Your task to perform on an android device: Show me recent news Image 0: 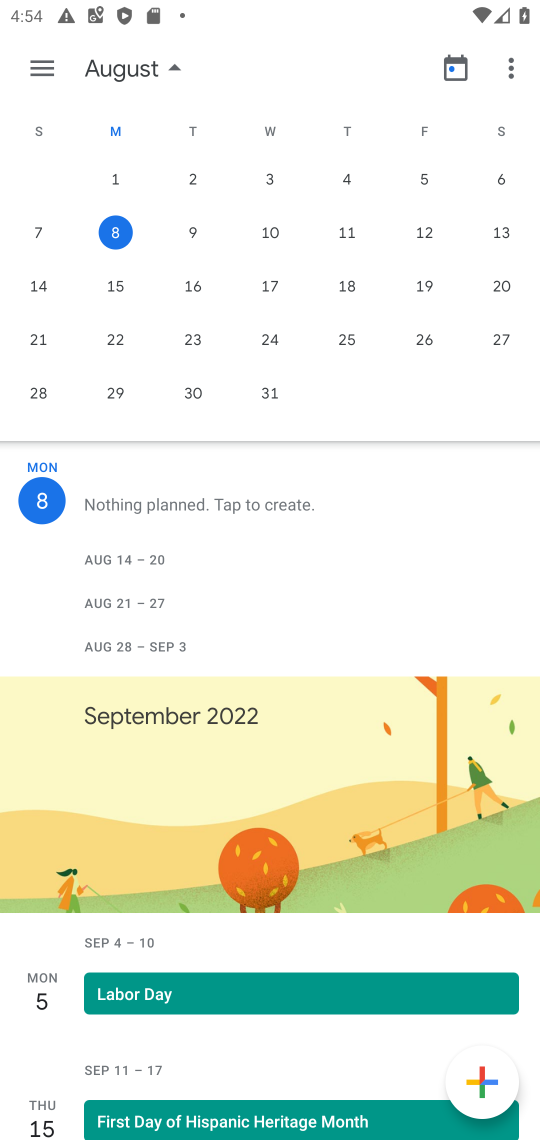
Step 0: press home button
Your task to perform on an android device: Show me recent news Image 1: 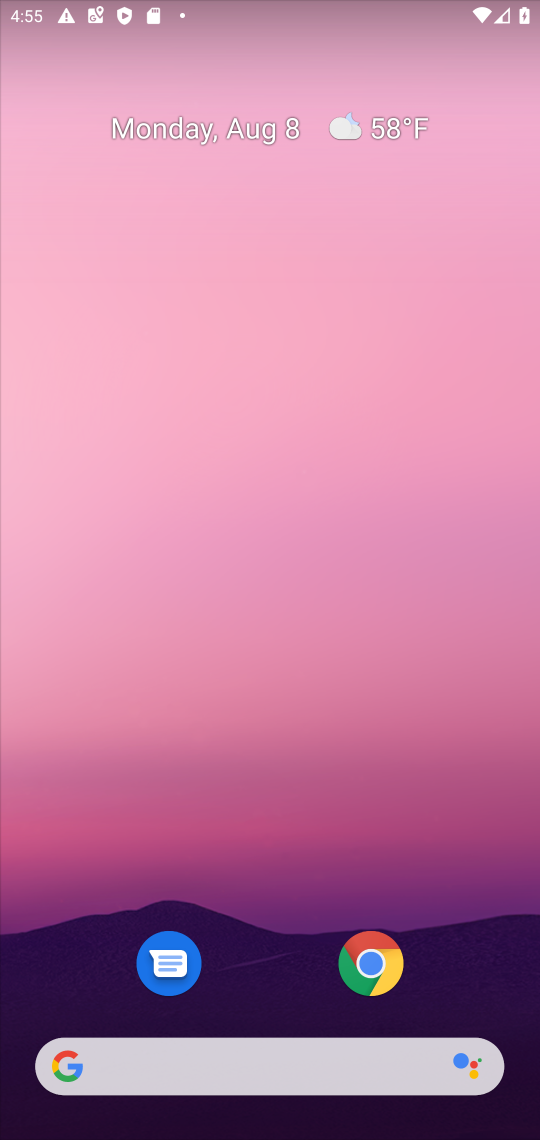
Step 1: click (274, 1057)
Your task to perform on an android device: Show me recent news Image 2: 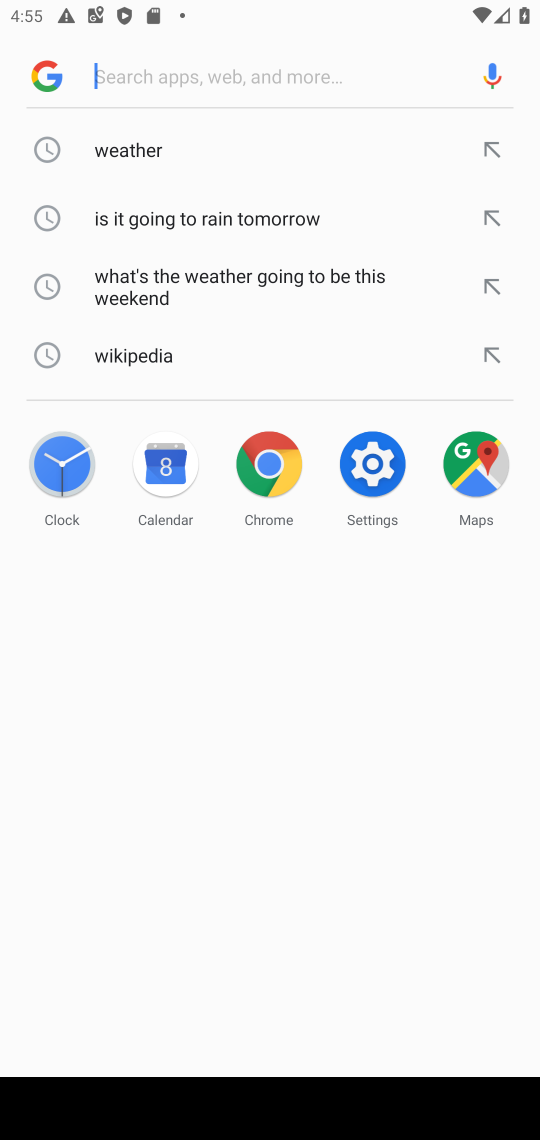
Step 2: type "recent news"
Your task to perform on an android device: Show me recent news Image 3: 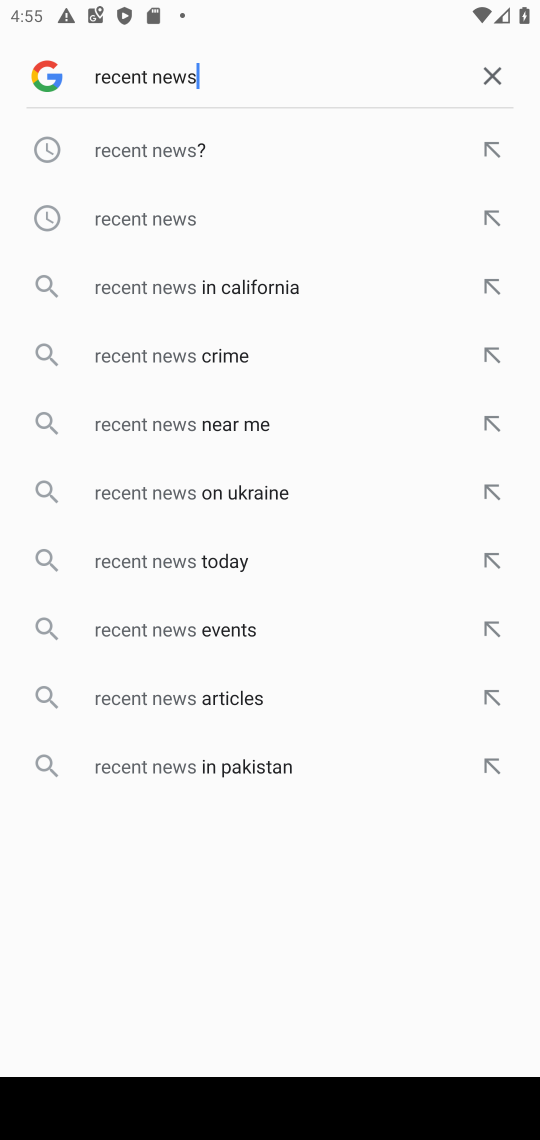
Step 3: click (221, 216)
Your task to perform on an android device: Show me recent news Image 4: 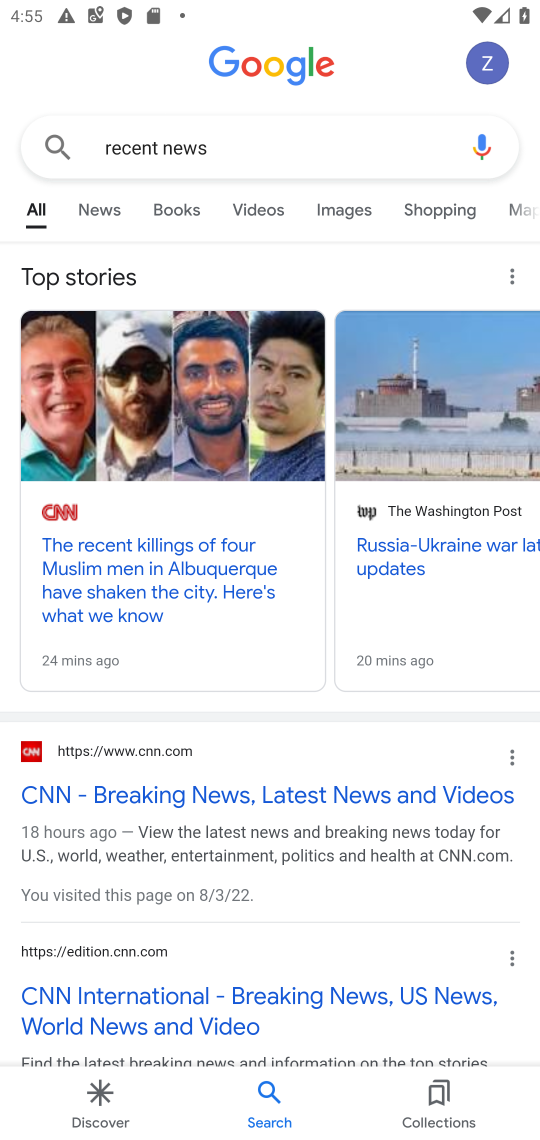
Step 4: task complete